Your task to perform on an android device: check out phone information Image 0: 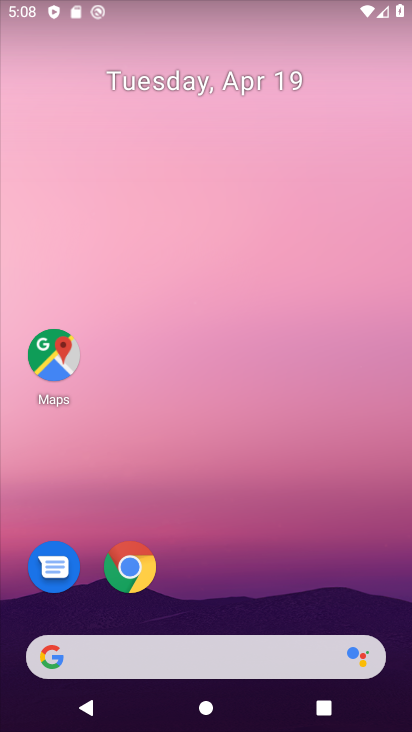
Step 0: drag from (211, 493) to (211, 36)
Your task to perform on an android device: check out phone information Image 1: 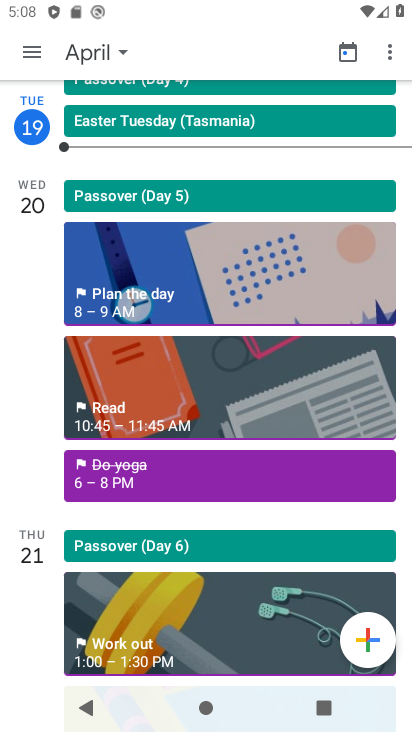
Step 1: press home button
Your task to perform on an android device: check out phone information Image 2: 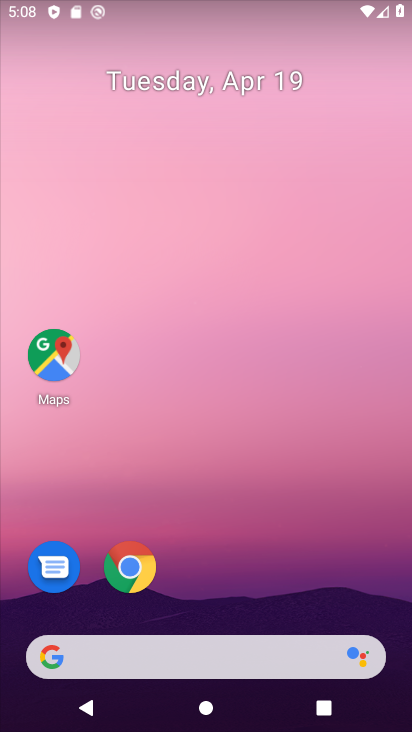
Step 2: drag from (248, 576) to (230, 38)
Your task to perform on an android device: check out phone information Image 3: 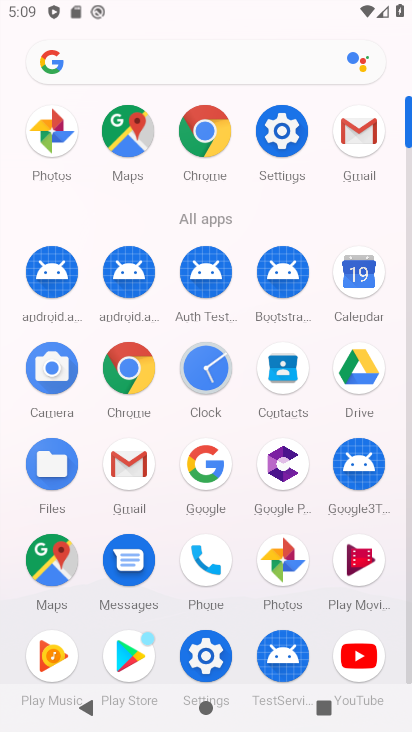
Step 3: click (197, 561)
Your task to perform on an android device: check out phone information Image 4: 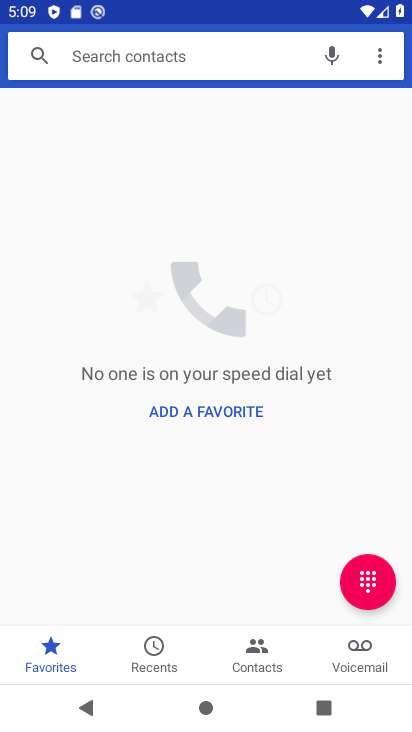
Step 4: press home button
Your task to perform on an android device: check out phone information Image 5: 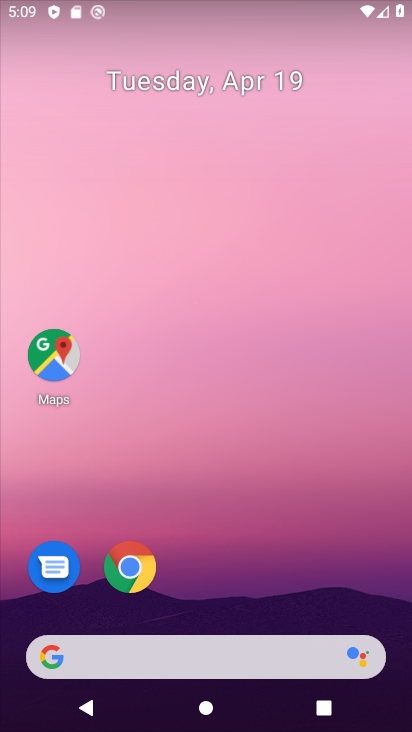
Step 5: drag from (261, 553) to (284, 17)
Your task to perform on an android device: check out phone information Image 6: 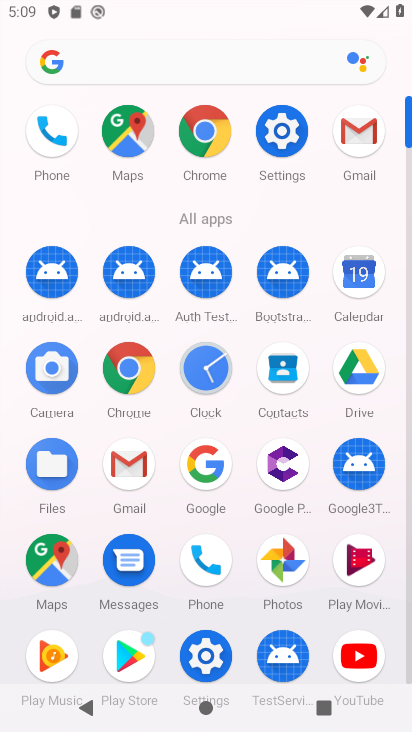
Step 6: click (51, 141)
Your task to perform on an android device: check out phone information Image 7: 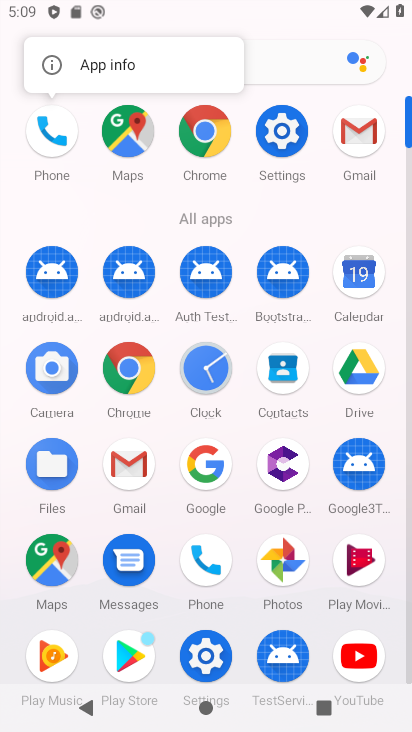
Step 7: click (117, 74)
Your task to perform on an android device: check out phone information Image 8: 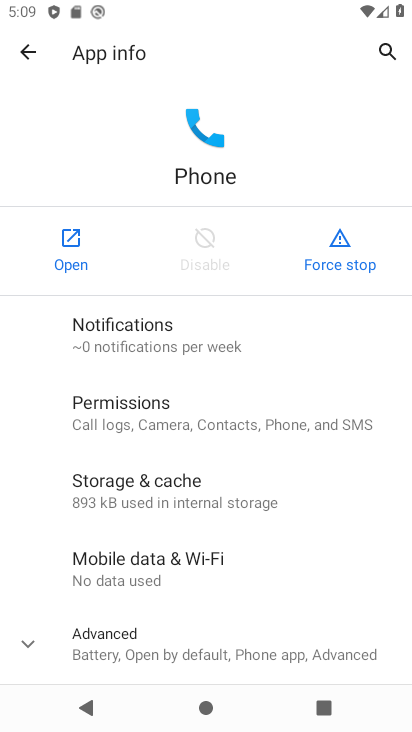
Step 8: task complete